Your task to perform on an android device: turn off picture-in-picture Image 0: 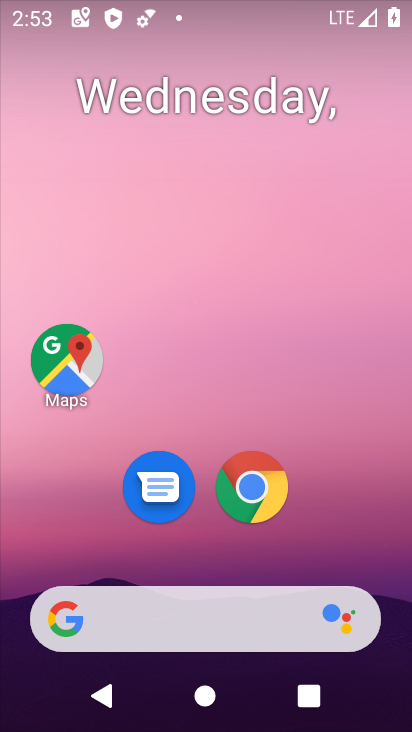
Step 0: click (267, 494)
Your task to perform on an android device: turn off picture-in-picture Image 1: 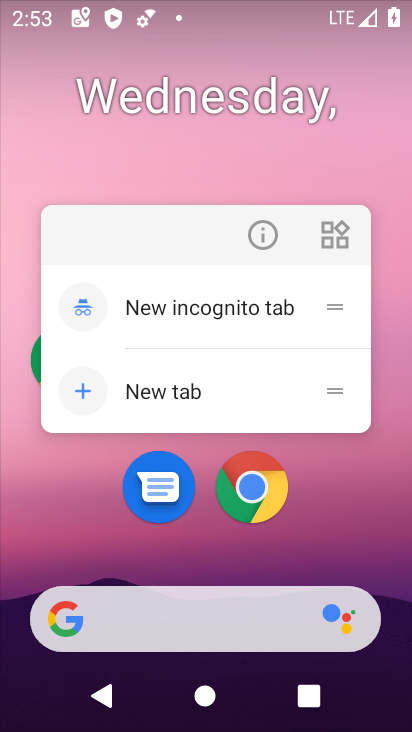
Step 1: click (266, 220)
Your task to perform on an android device: turn off picture-in-picture Image 2: 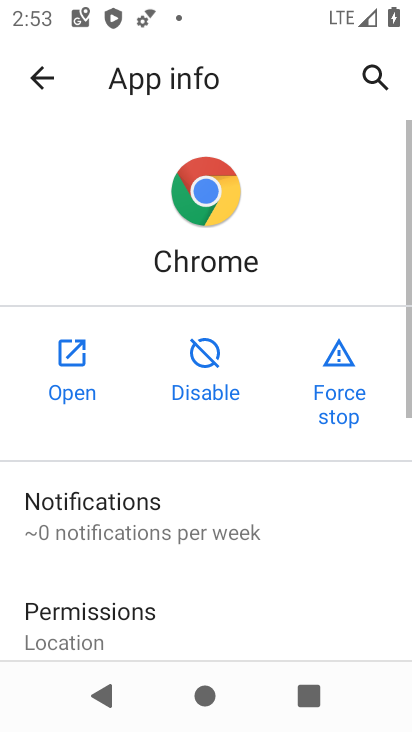
Step 2: drag from (244, 565) to (256, 132)
Your task to perform on an android device: turn off picture-in-picture Image 3: 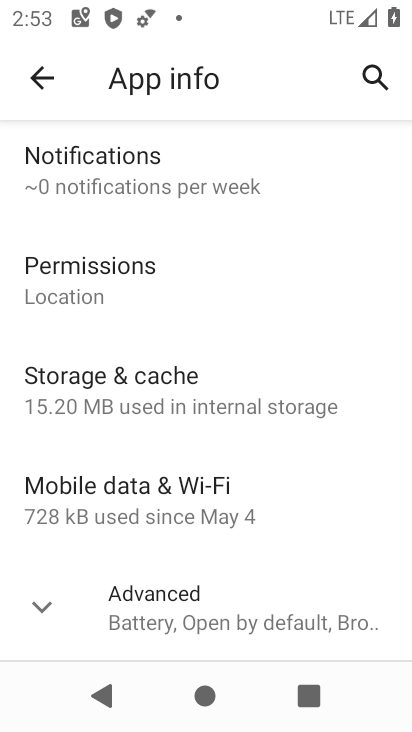
Step 3: click (42, 600)
Your task to perform on an android device: turn off picture-in-picture Image 4: 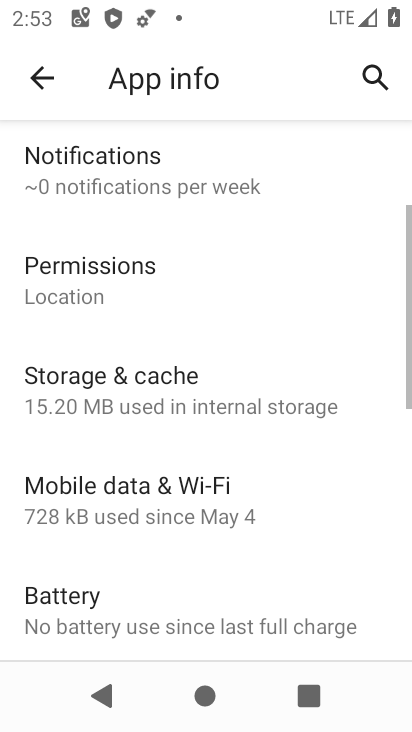
Step 4: drag from (161, 556) to (196, 121)
Your task to perform on an android device: turn off picture-in-picture Image 5: 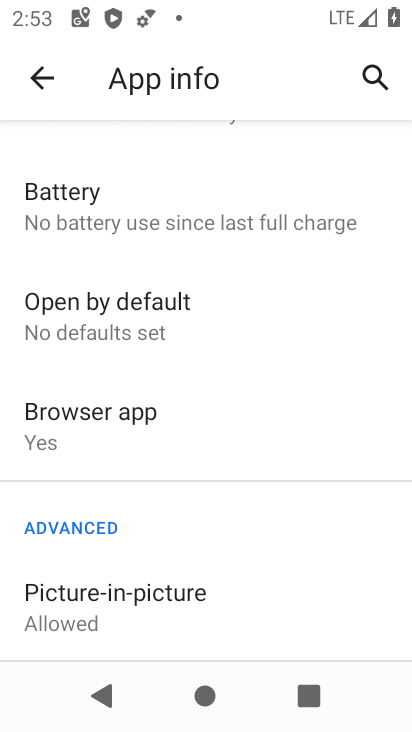
Step 5: click (151, 600)
Your task to perform on an android device: turn off picture-in-picture Image 6: 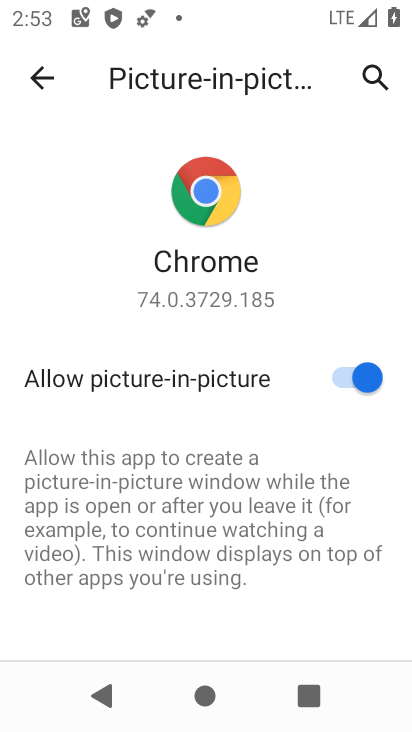
Step 6: click (343, 365)
Your task to perform on an android device: turn off picture-in-picture Image 7: 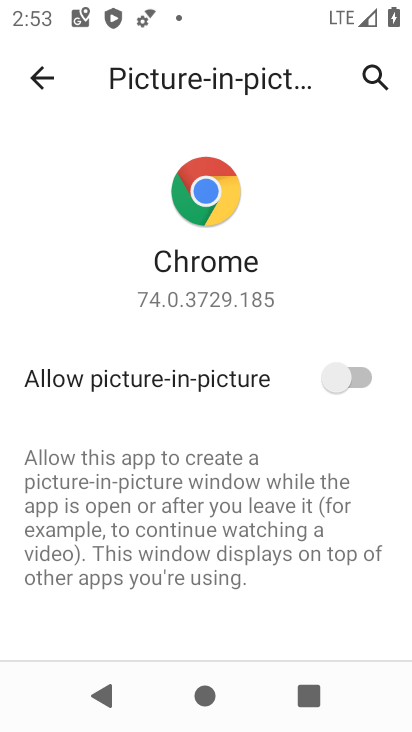
Step 7: task complete